Your task to perform on an android device: delete the emails in spam in the gmail app Image 0: 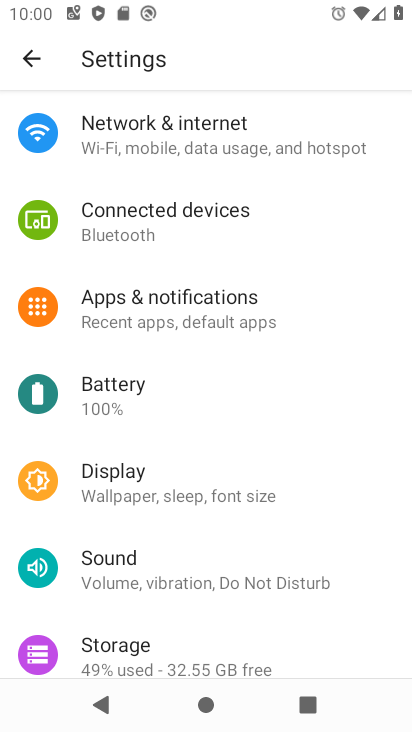
Step 0: press home button
Your task to perform on an android device: delete the emails in spam in the gmail app Image 1: 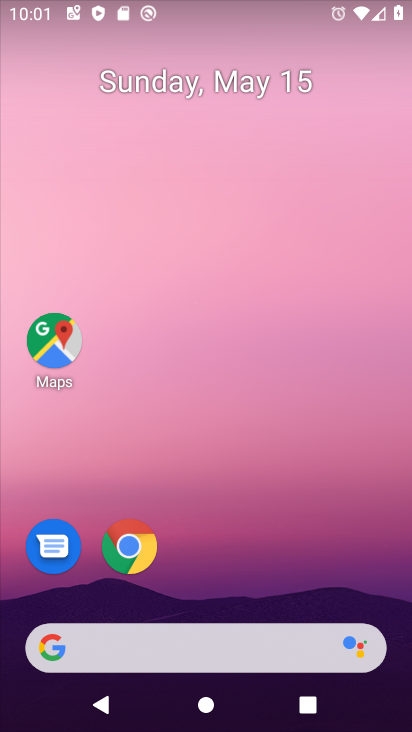
Step 1: drag from (252, 471) to (326, 42)
Your task to perform on an android device: delete the emails in spam in the gmail app Image 2: 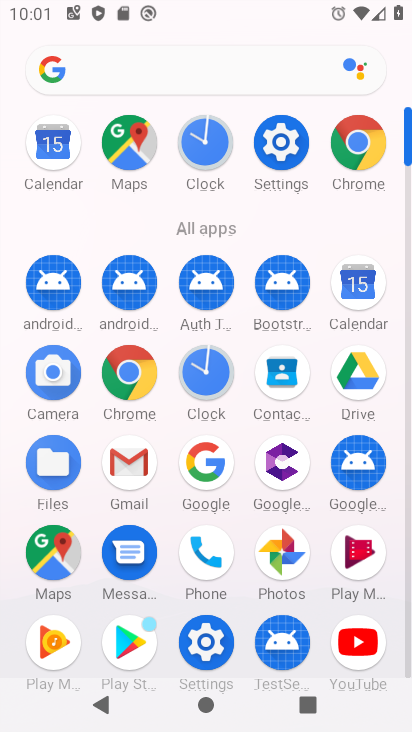
Step 2: click (127, 460)
Your task to perform on an android device: delete the emails in spam in the gmail app Image 3: 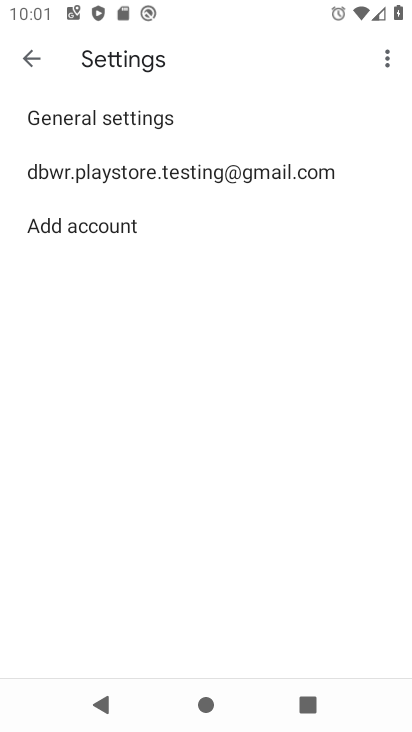
Step 3: click (22, 53)
Your task to perform on an android device: delete the emails in spam in the gmail app Image 4: 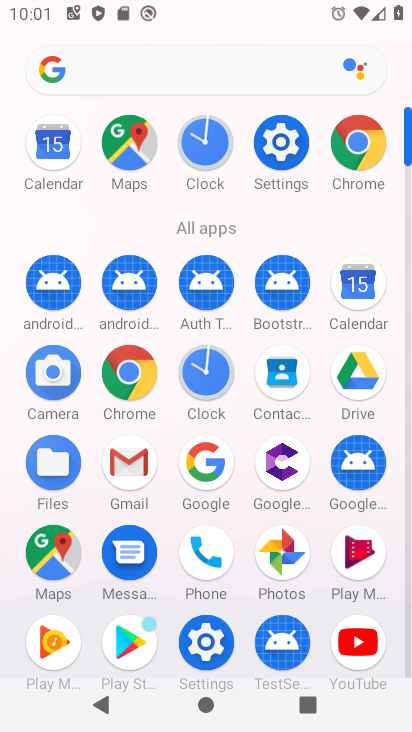
Step 4: click (146, 480)
Your task to perform on an android device: delete the emails in spam in the gmail app Image 5: 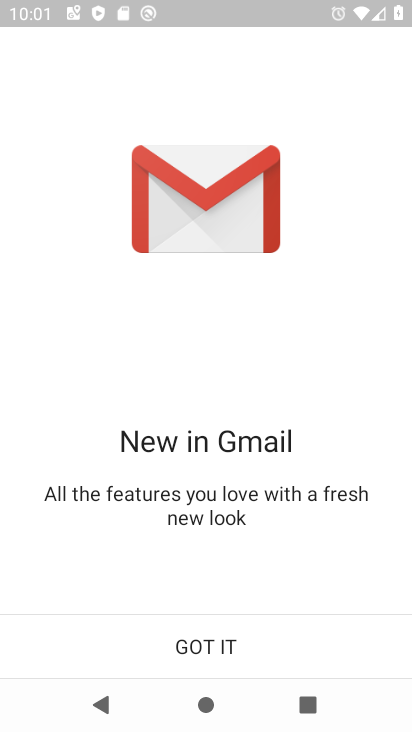
Step 5: click (205, 650)
Your task to perform on an android device: delete the emails in spam in the gmail app Image 6: 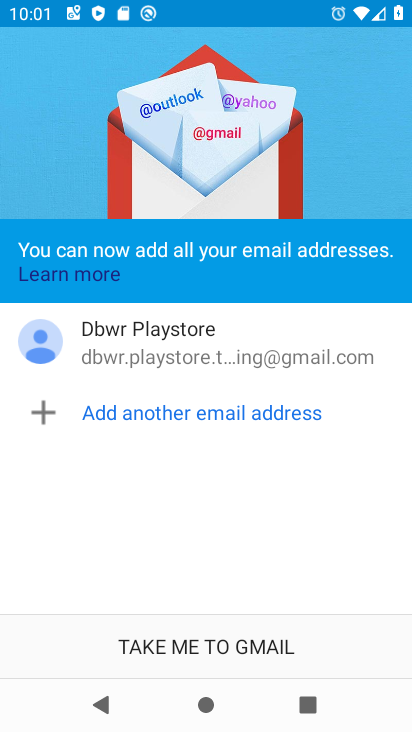
Step 6: click (196, 644)
Your task to perform on an android device: delete the emails in spam in the gmail app Image 7: 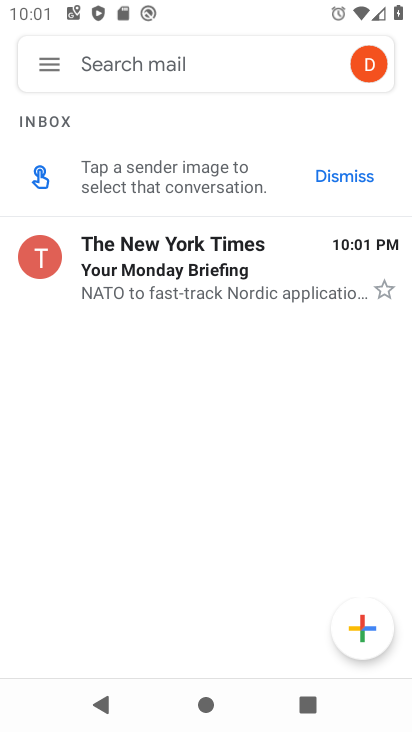
Step 7: click (39, 46)
Your task to perform on an android device: delete the emails in spam in the gmail app Image 8: 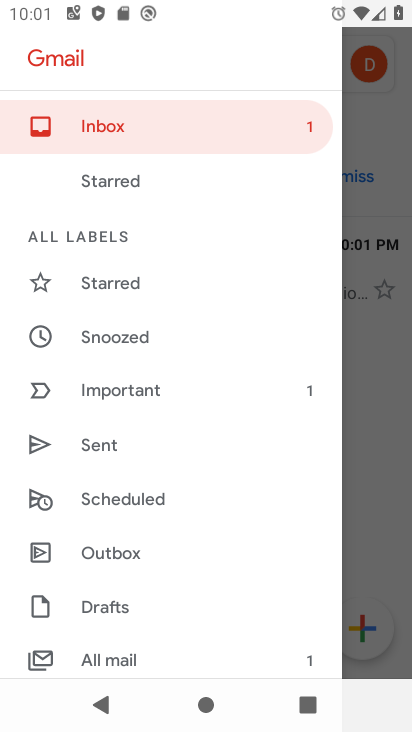
Step 8: drag from (137, 616) to (293, 191)
Your task to perform on an android device: delete the emails in spam in the gmail app Image 9: 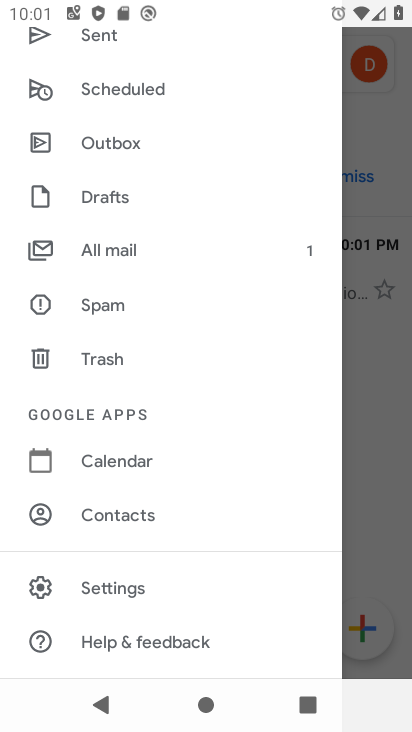
Step 9: click (116, 295)
Your task to perform on an android device: delete the emails in spam in the gmail app Image 10: 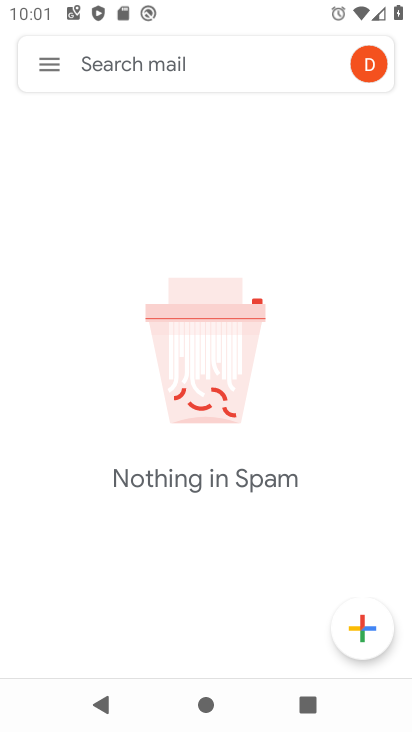
Step 10: task complete